Your task to perform on an android device: change the clock display to digital Image 0: 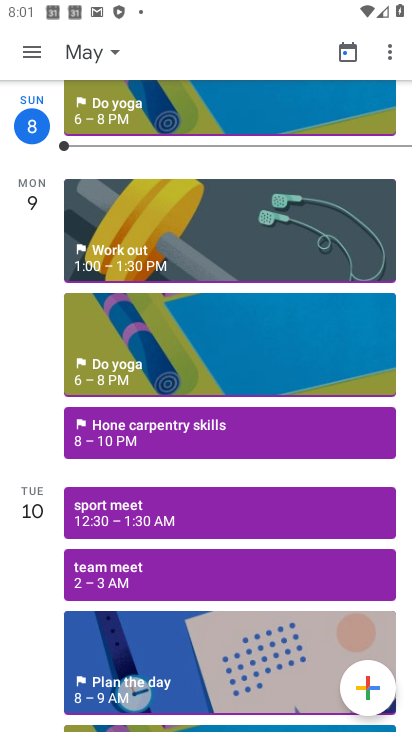
Step 0: press home button
Your task to perform on an android device: change the clock display to digital Image 1: 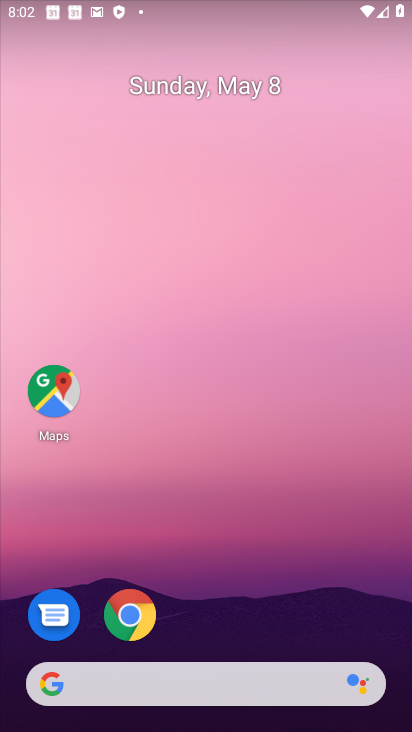
Step 1: drag from (237, 632) to (225, 270)
Your task to perform on an android device: change the clock display to digital Image 2: 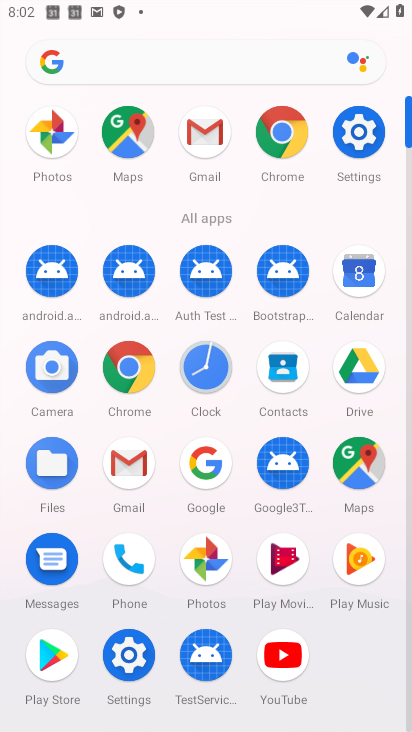
Step 2: click (217, 378)
Your task to perform on an android device: change the clock display to digital Image 3: 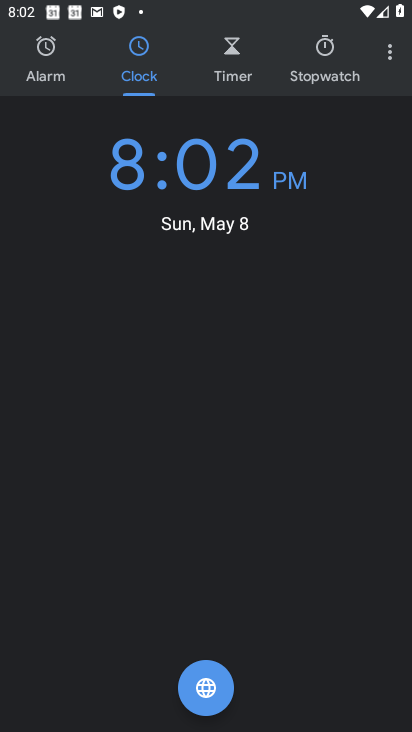
Step 3: click (382, 73)
Your task to perform on an android device: change the clock display to digital Image 4: 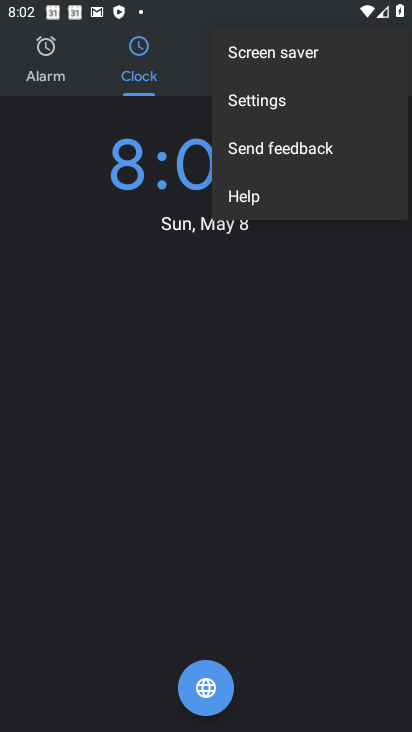
Step 4: click (345, 110)
Your task to perform on an android device: change the clock display to digital Image 5: 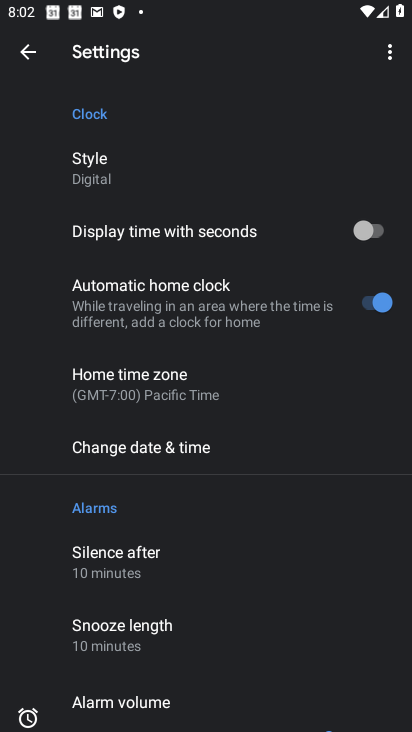
Step 5: click (174, 162)
Your task to perform on an android device: change the clock display to digital Image 6: 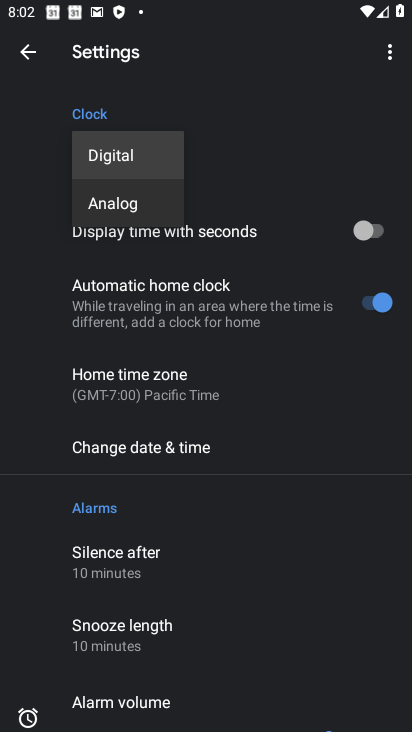
Step 6: task complete